Your task to perform on an android device: Open Maps and search for coffee Image 0: 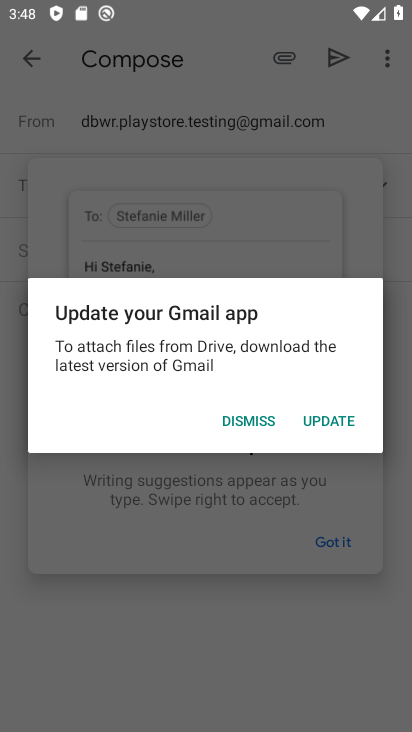
Step 0: press back button
Your task to perform on an android device: Open Maps and search for coffee Image 1: 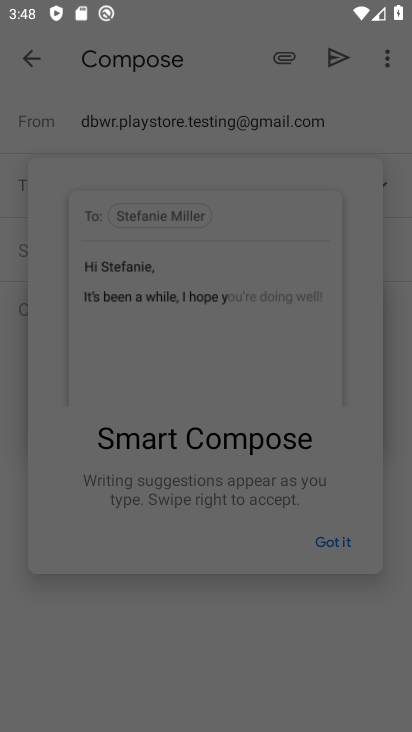
Step 1: press back button
Your task to perform on an android device: Open Maps and search for coffee Image 2: 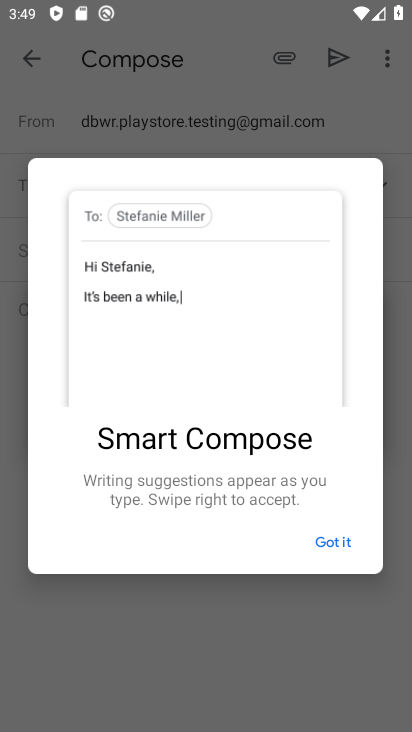
Step 2: press back button
Your task to perform on an android device: Open Maps and search for coffee Image 3: 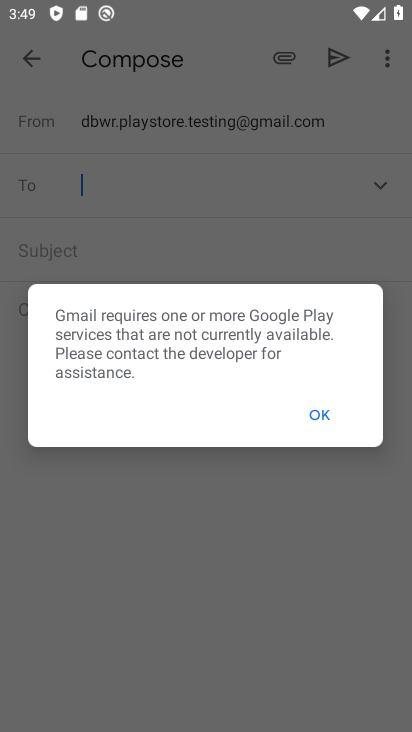
Step 3: press back button
Your task to perform on an android device: Open Maps and search for coffee Image 4: 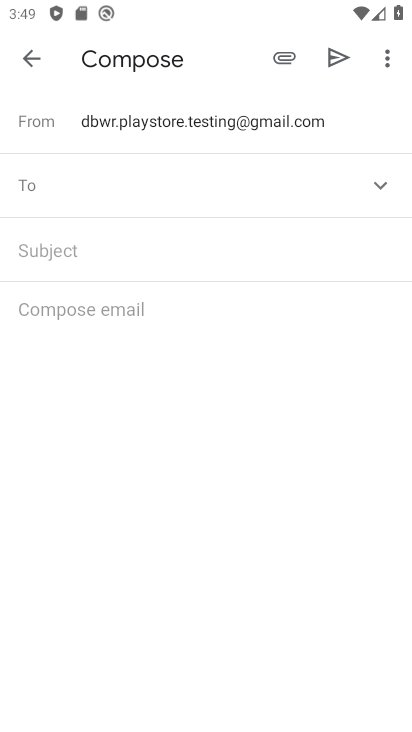
Step 4: press home button
Your task to perform on an android device: Open Maps and search for coffee Image 5: 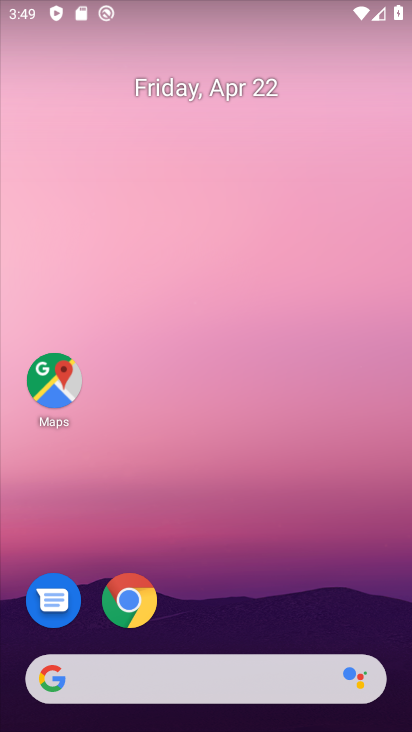
Step 5: drag from (149, 639) to (305, 37)
Your task to perform on an android device: Open Maps and search for coffee Image 6: 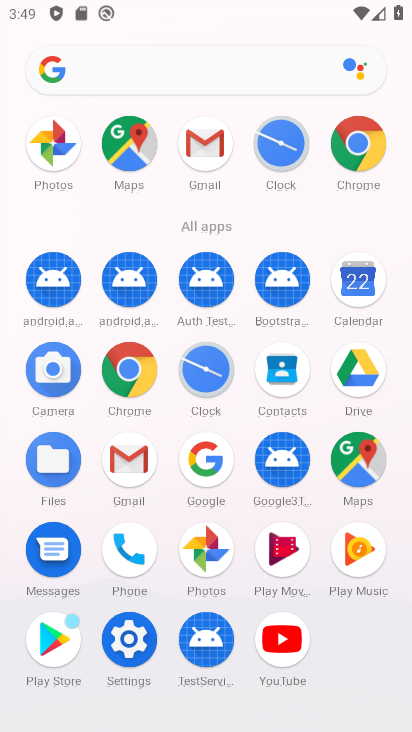
Step 6: click (354, 464)
Your task to perform on an android device: Open Maps and search for coffee Image 7: 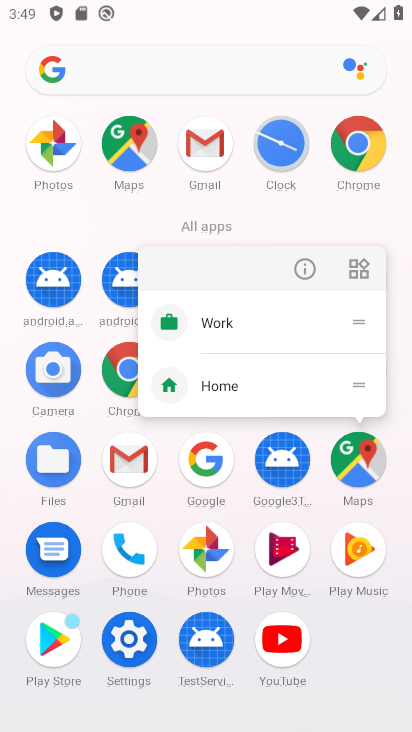
Step 7: click (370, 450)
Your task to perform on an android device: Open Maps and search for coffee Image 8: 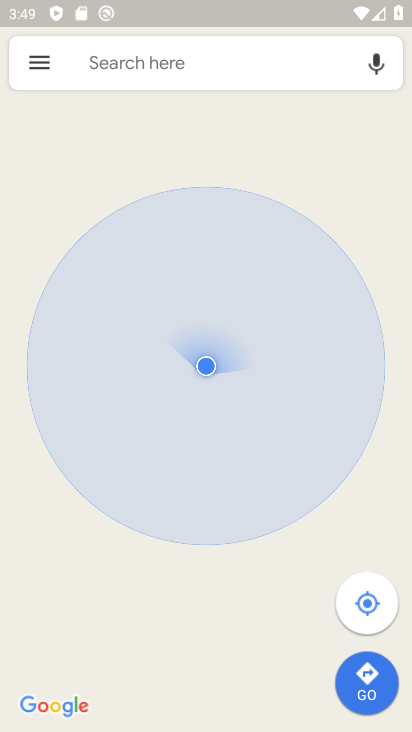
Step 8: click (217, 78)
Your task to perform on an android device: Open Maps and search for coffee Image 9: 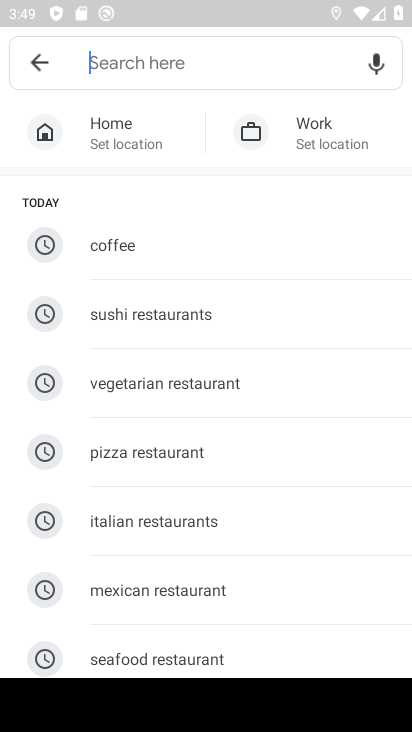
Step 9: type "Coffee "
Your task to perform on an android device: Open Maps and search for coffee Image 10: 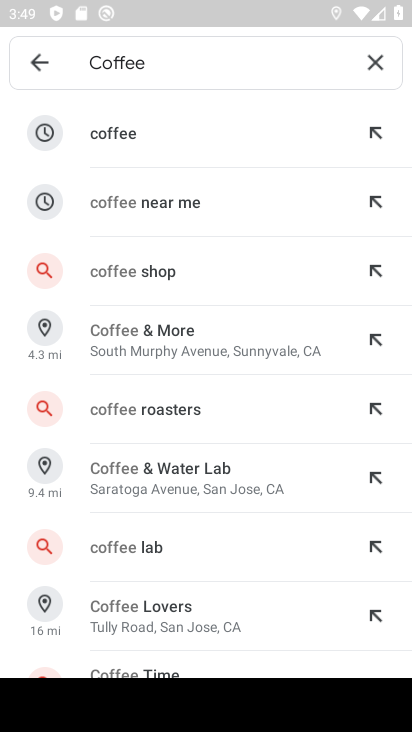
Step 10: click (195, 151)
Your task to perform on an android device: Open Maps and search for coffee Image 11: 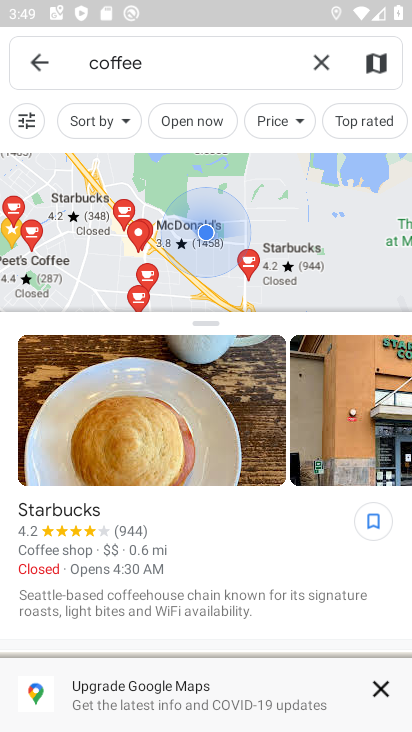
Step 11: task complete